Your task to perform on an android device: Open wifi settings Image 0: 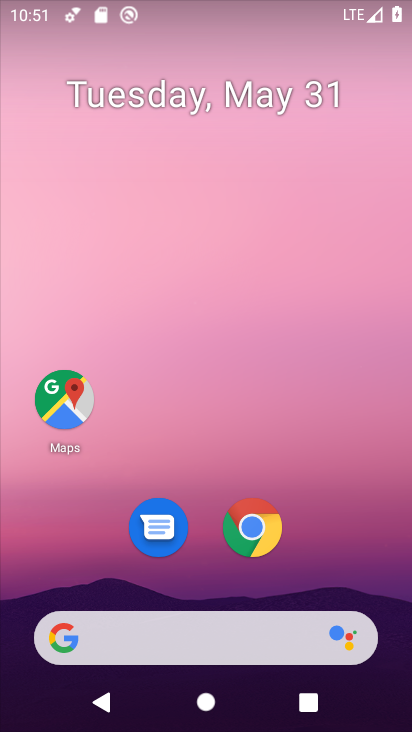
Step 0: drag from (321, 583) to (308, 7)
Your task to perform on an android device: Open wifi settings Image 1: 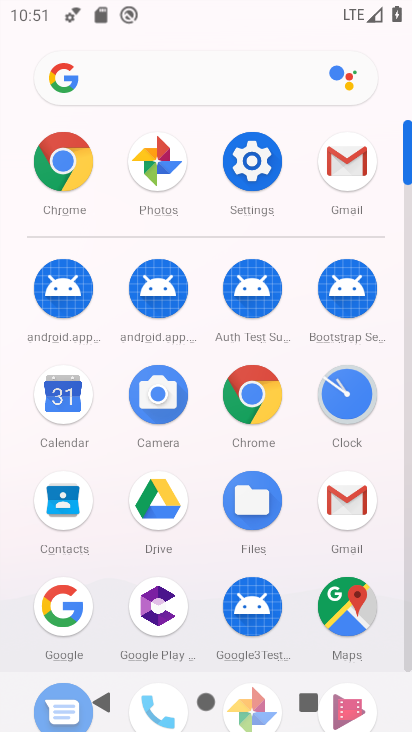
Step 1: click (244, 162)
Your task to perform on an android device: Open wifi settings Image 2: 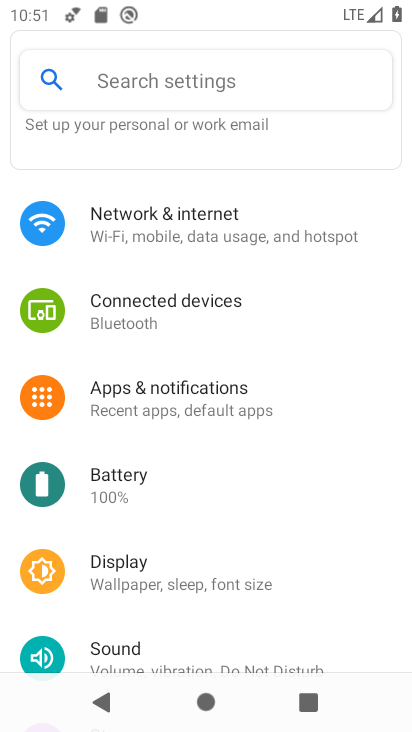
Step 2: click (170, 228)
Your task to perform on an android device: Open wifi settings Image 3: 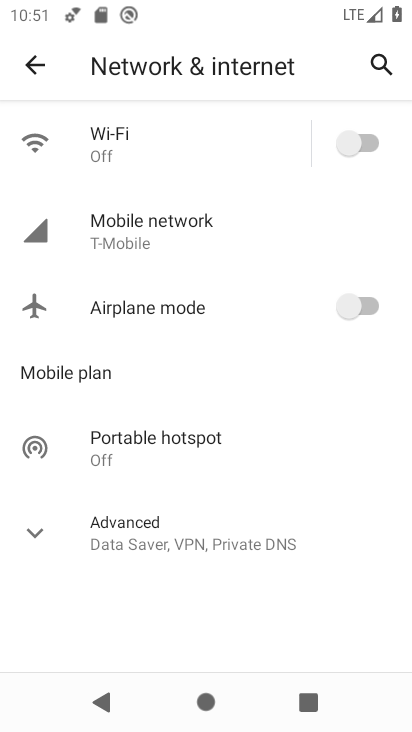
Step 3: click (81, 139)
Your task to perform on an android device: Open wifi settings Image 4: 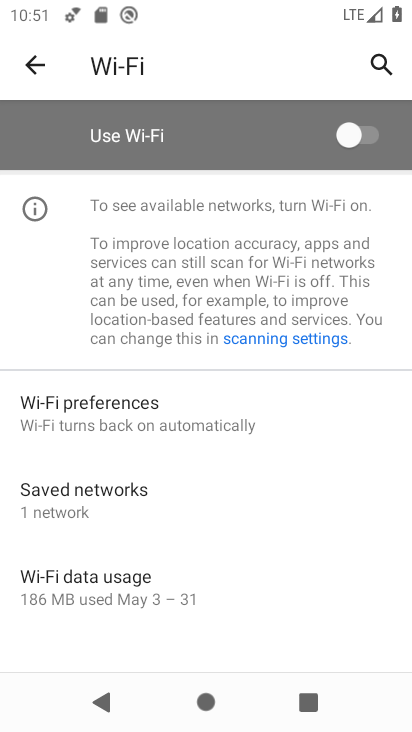
Step 4: task complete